Your task to perform on an android device: Search for Italian restaurants on Maps Image 0: 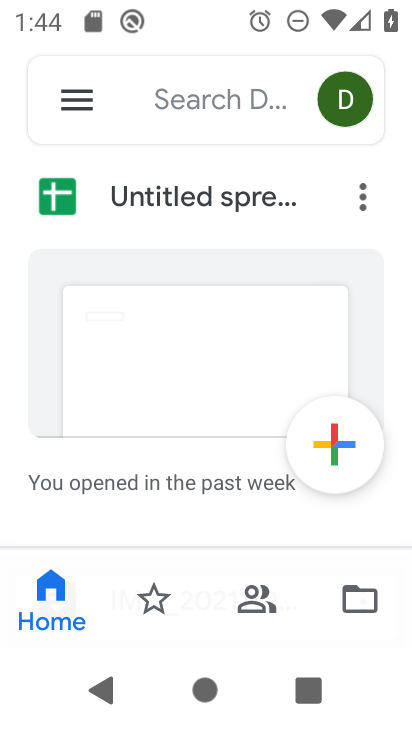
Step 0: press home button
Your task to perform on an android device: Search for Italian restaurants on Maps Image 1: 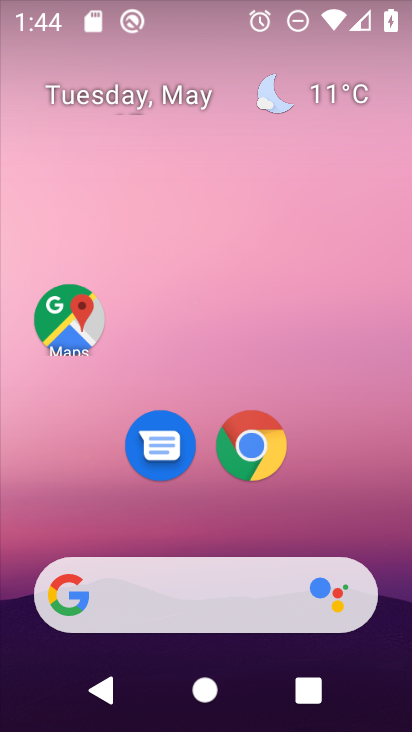
Step 1: drag from (329, 484) to (332, 328)
Your task to perform on an android device: Search for Italian restaurants on Maps Image 2: 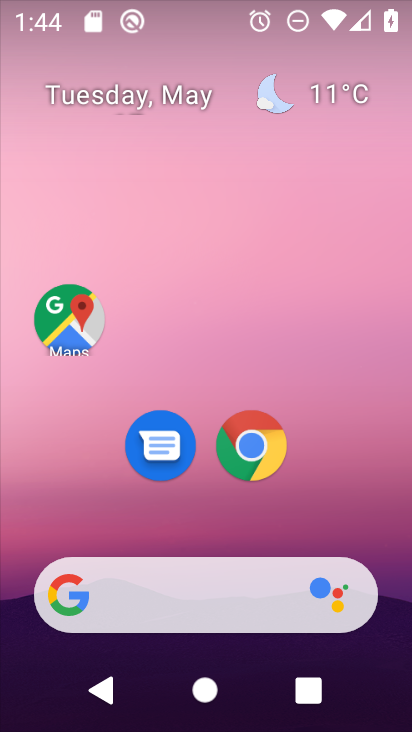
Step 2: click (78, 311)
Your task to perform on an android device: Search for Italian restaurants on Maps Image 3: 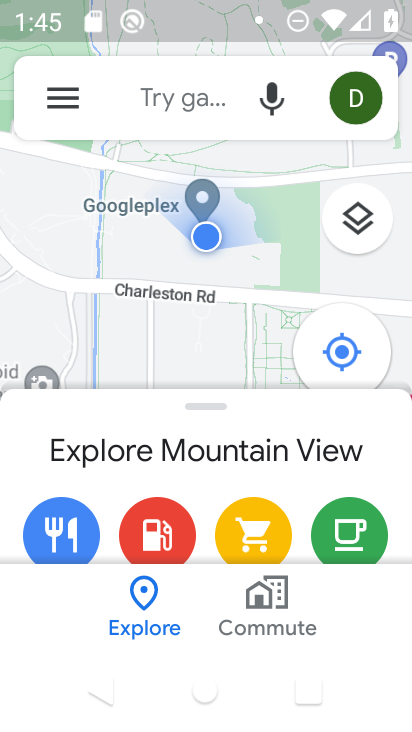
Step 3: click (182, 113)
Your task to perform on an android device: Search for Italian restaurants on Maps Image 4: 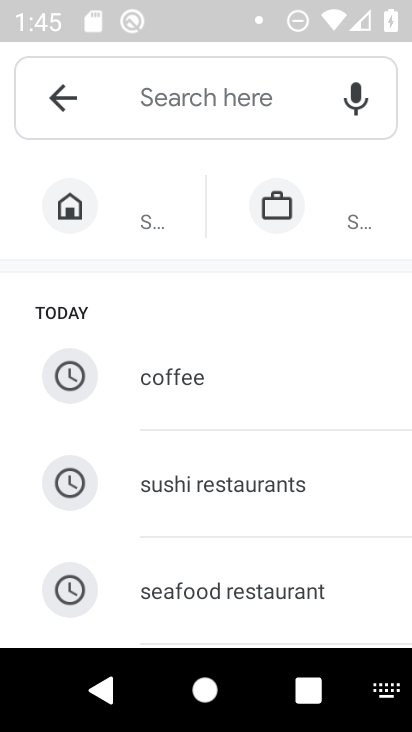
Step 4: drag from (309, 563) to (261, 288)
Your task to perform on an android device: Search for Italian restaurants on Maps Image 5: 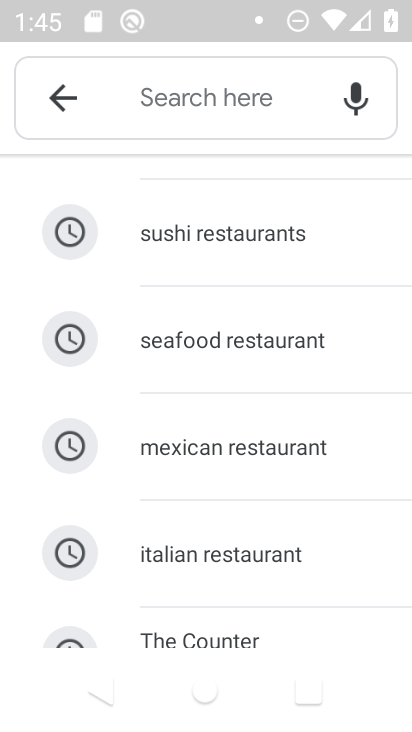
Step 5: click (252, 538)
Your task to perform on an android device: Search for Italian restaurants on Maps Image 6: 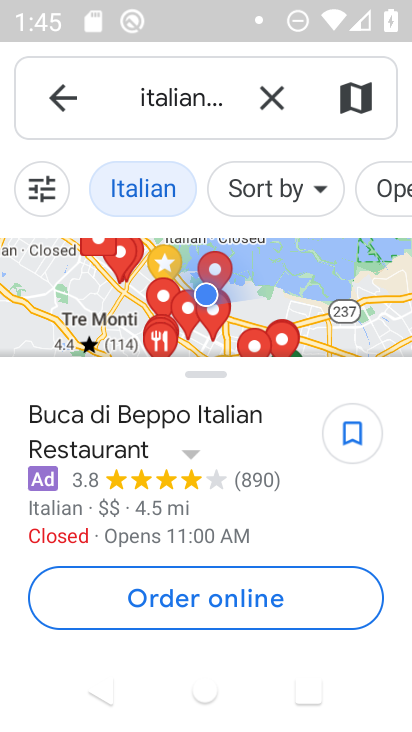
Step 6: task complete